Your task to perform on an android device: uninstall "Spotify" Image 0: 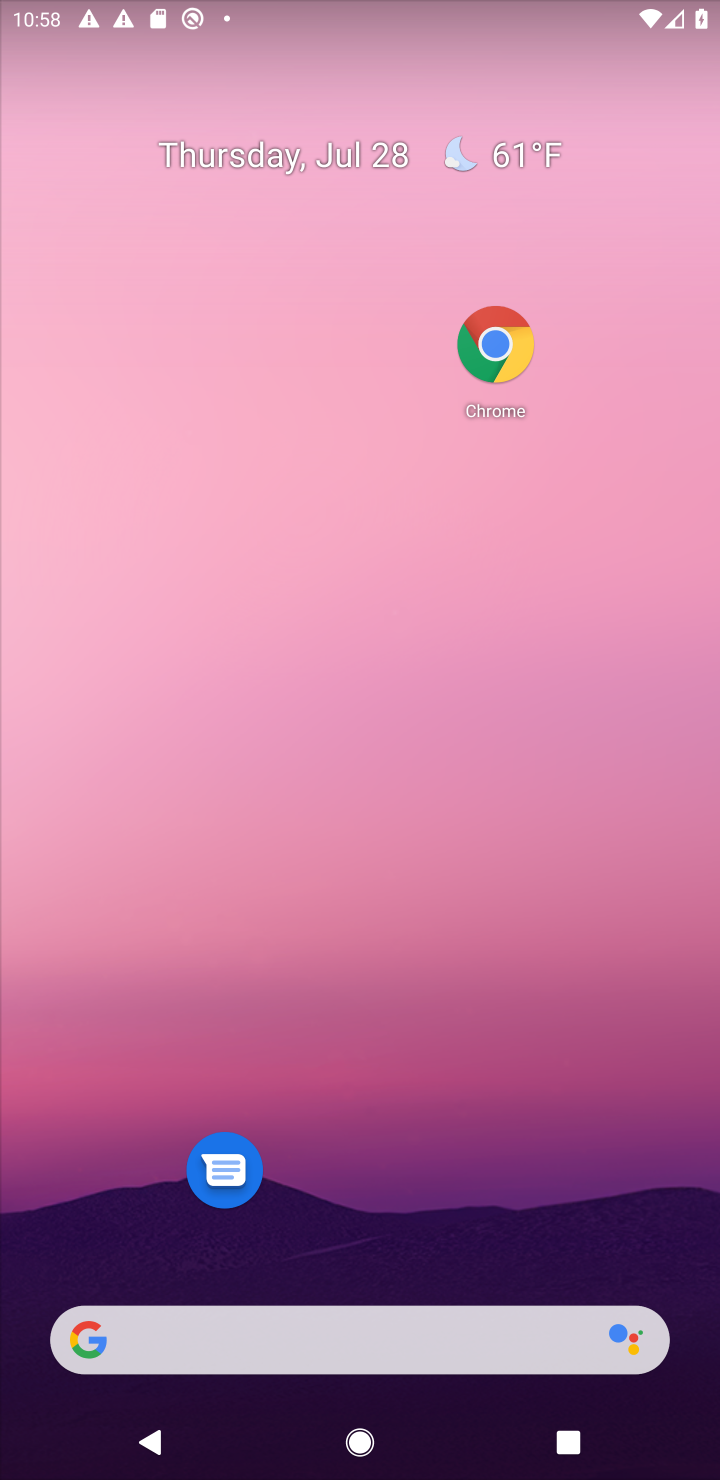
Step 0: drag from (479, 1157) to (567, 339)
Your task to perform on an android device: uninstall "Spotify" Image 1: 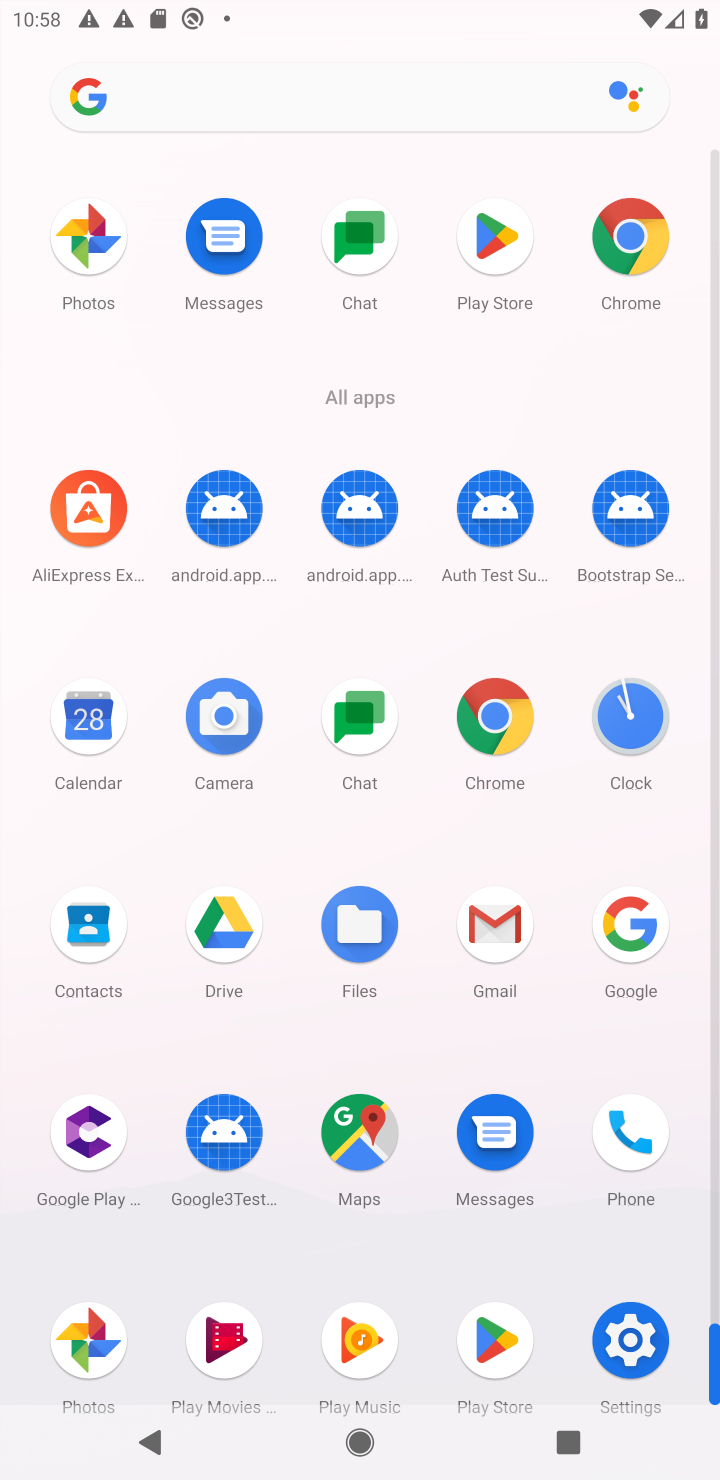
Step 1: click (459, 220)
Your task to perform on an android device: uninstall "Spotify" Image 2: 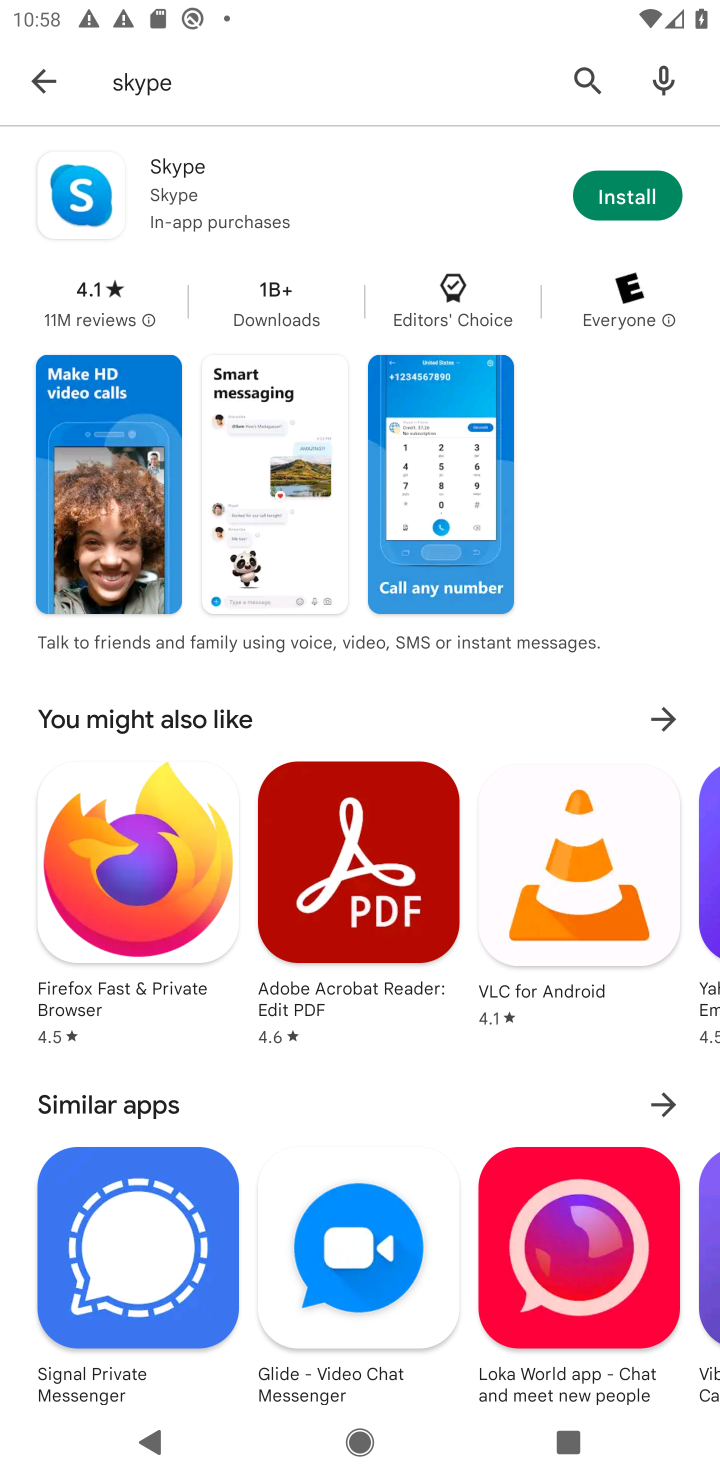
Step 2: click (589, 89)
Your task to perform on an android device: uninstall "Spotify" Image 3: 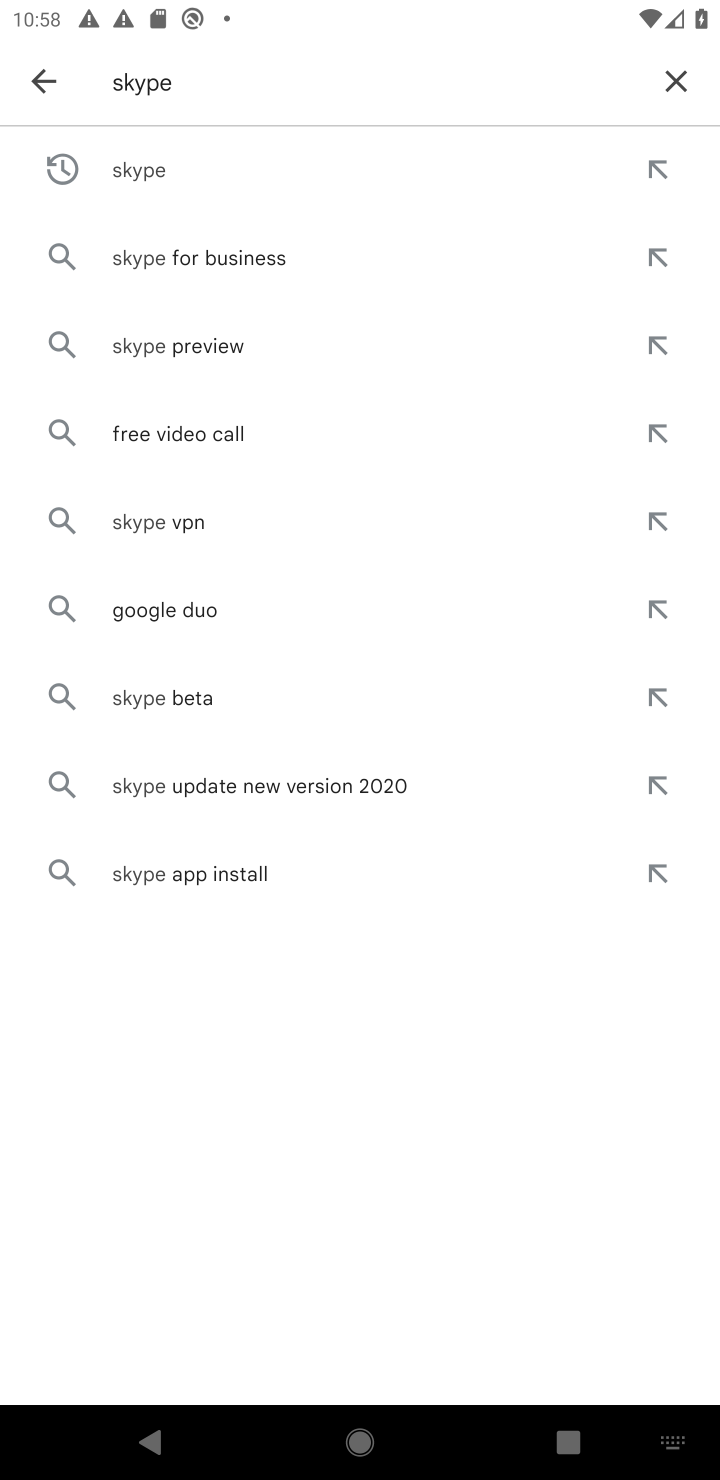
Step 3: click (672, 66)
Your task to perform on an android device: uninstall "Spotify" Image 4: 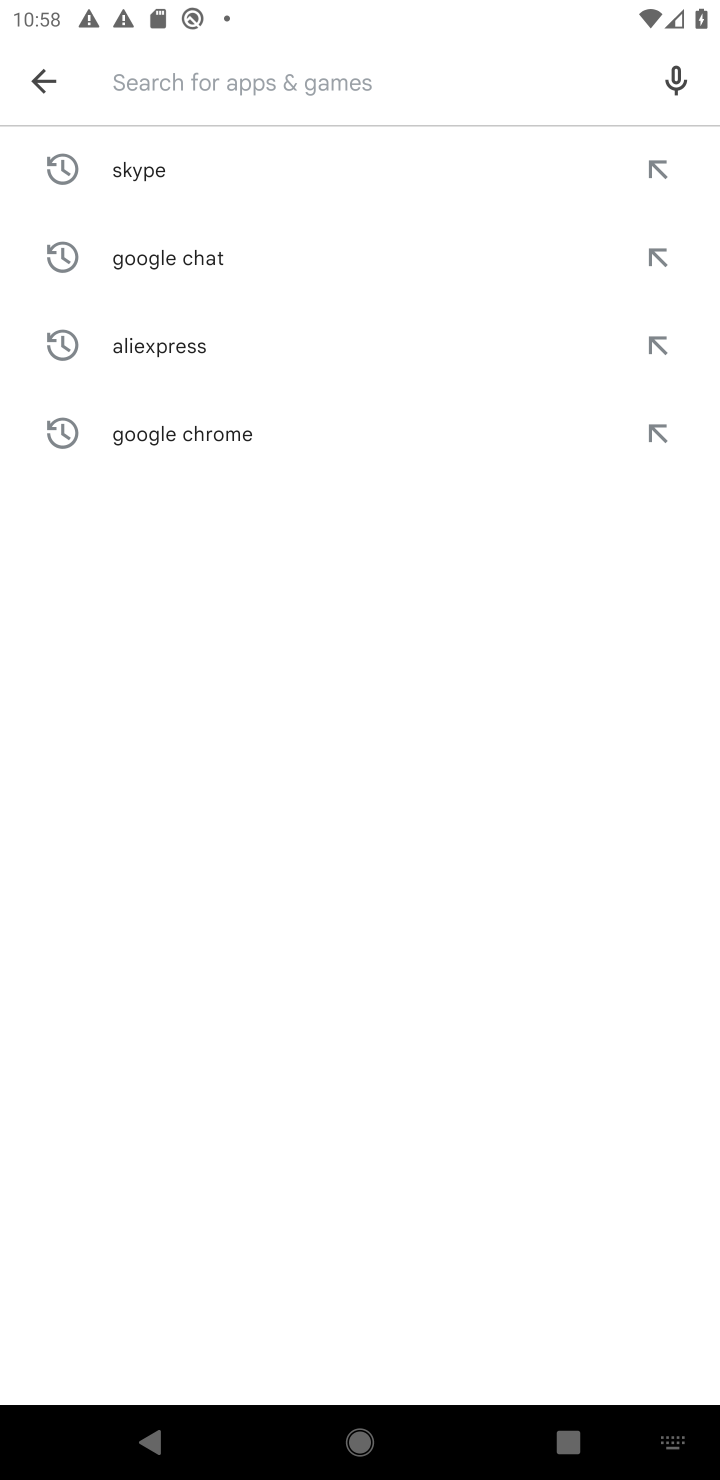
Step 4: type "spotify"
Your task to perform on an android device: uninstall "Spotify" Image 5: 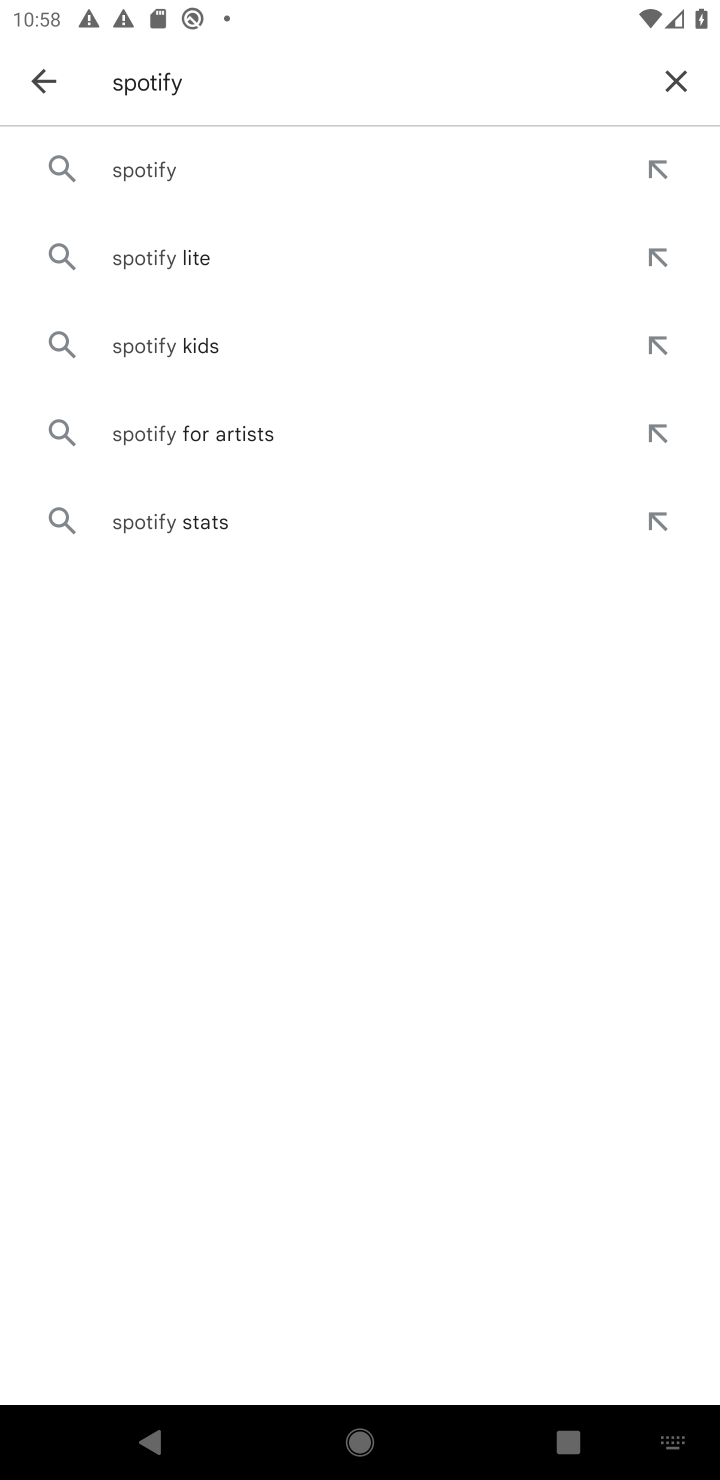
Step 5: click (123, 165)
Your task to perform on an android device: uninstall "Spotify" Image 6: 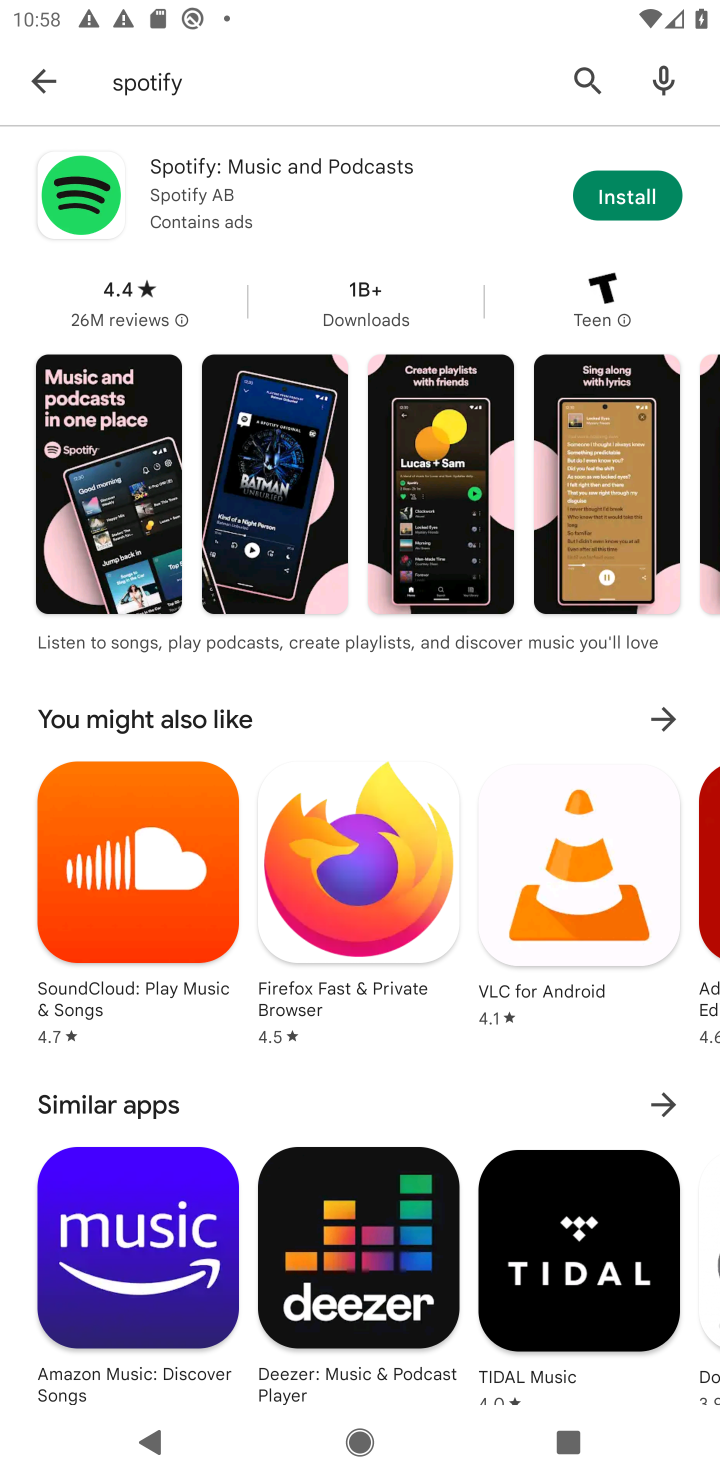
Step 6: task complete